Your task to perform on an android device: turn on location history Image 0: 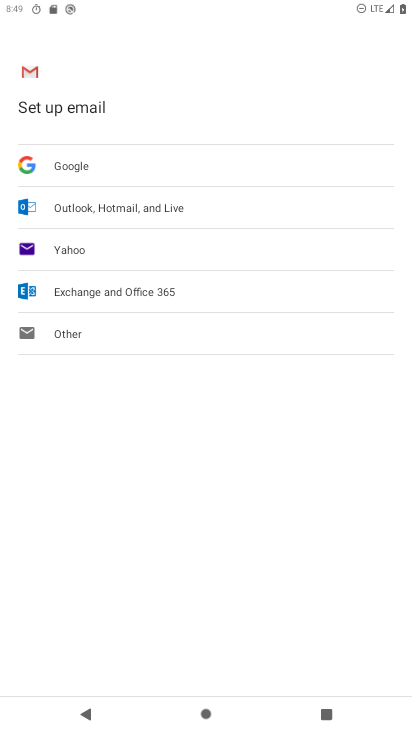
Step 0: press home button
Your task to perform on an android device: turn on location history Image 1: 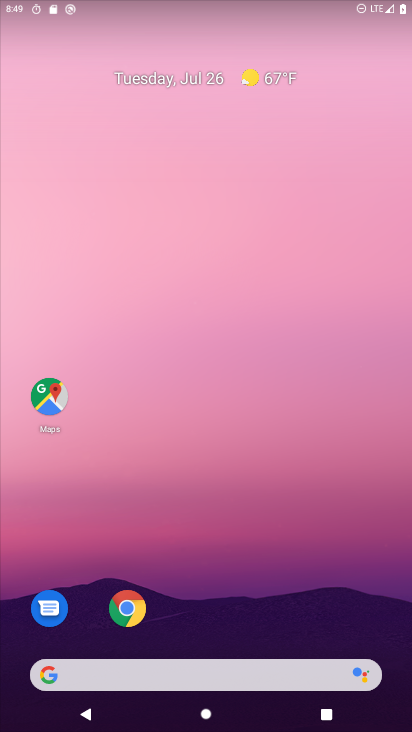
Step 1: drag from (218, 576) to (213, 60)
Your task to perform on an android device: turn on location history Image 2: 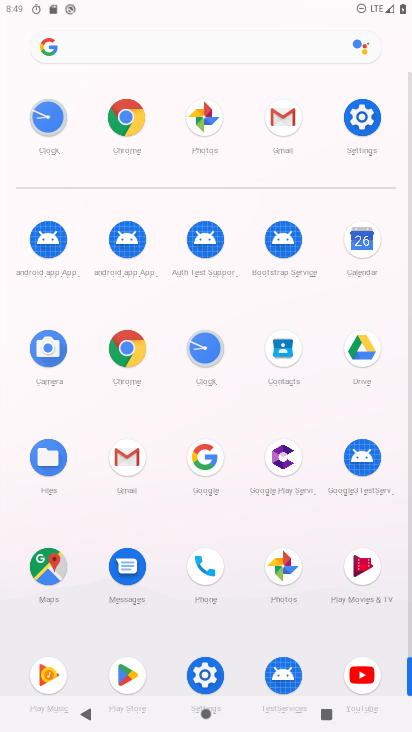
Step 2: click (204, 668)
Your task to perform on an android device: turn on location history Image 3: 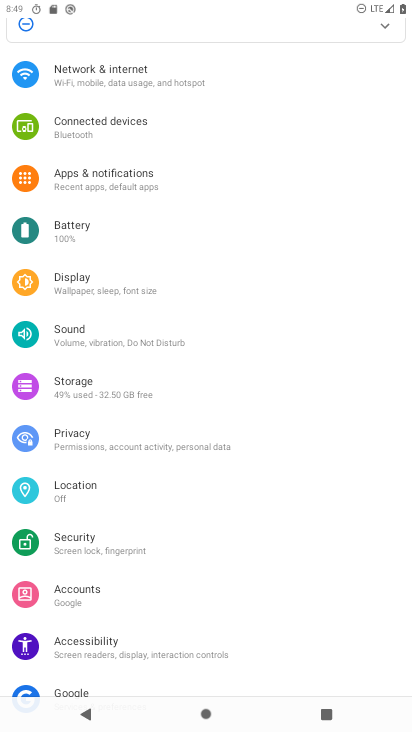
Step 3: click (101, 485)
Your task to perform on an android device: turn on location history Image 4: 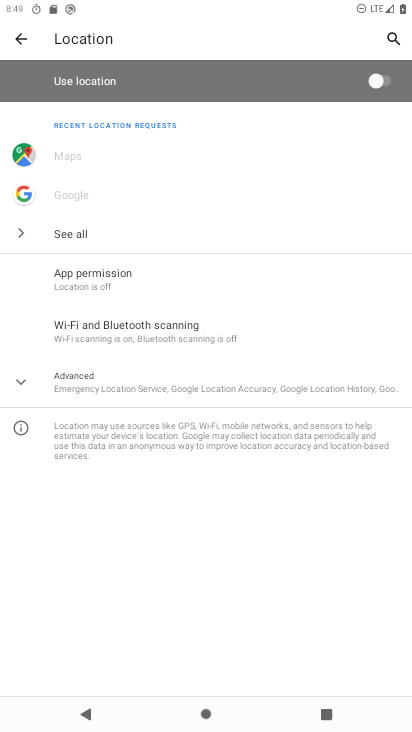
Step 4: click (171, 381)
Your task to perform on an android device: turn on location history Image 5: 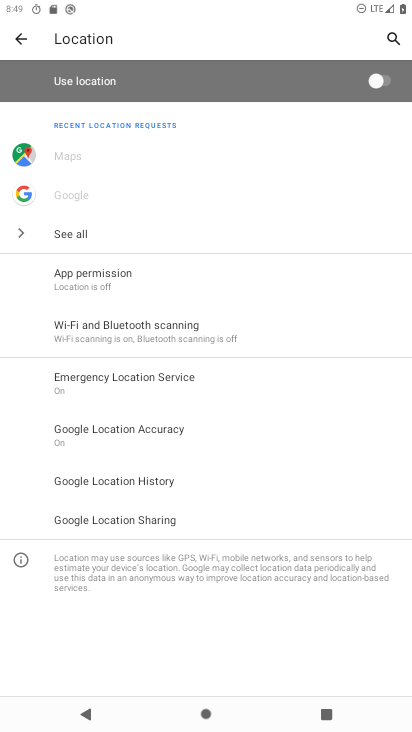
Step 5: click (135, 476)
Your task to perform on an android device: turn on location history Image 6: 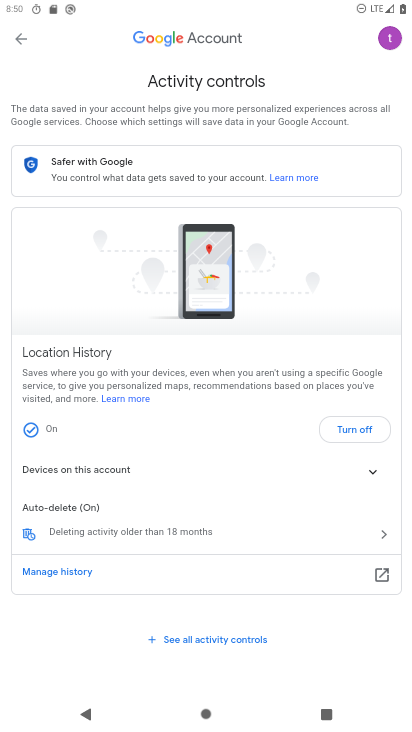
Step 6: task complete